Your task to perform on an android device: Go to Reddit.com Image 0: 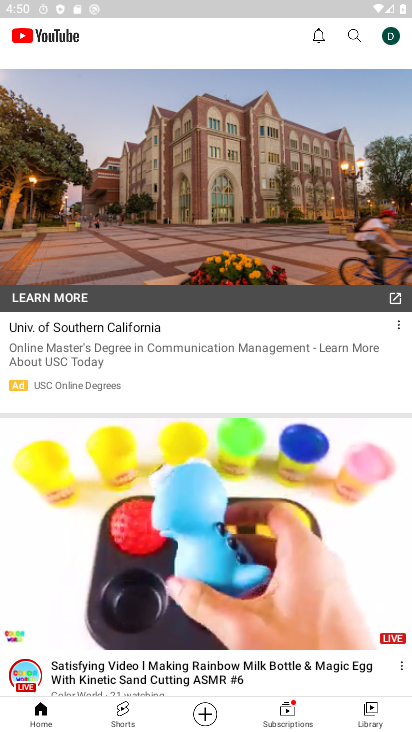
Step 0: press back button
Your task to perform on an android device: Go to Reddit.com Image 1: 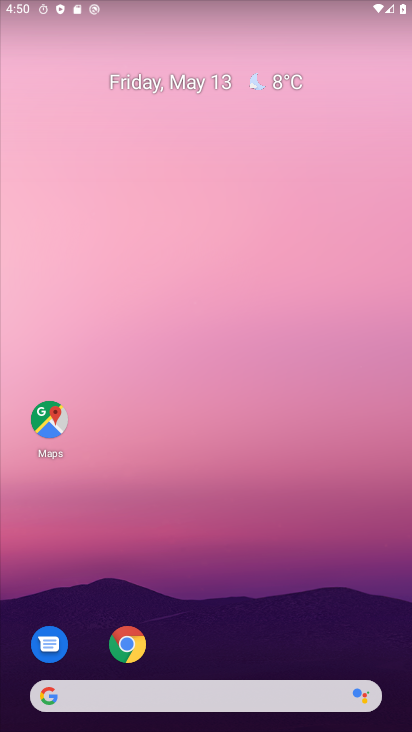
Step 1: click (136, 640)
Your task to perform on an android device: Go to Reddit.com Image 2: 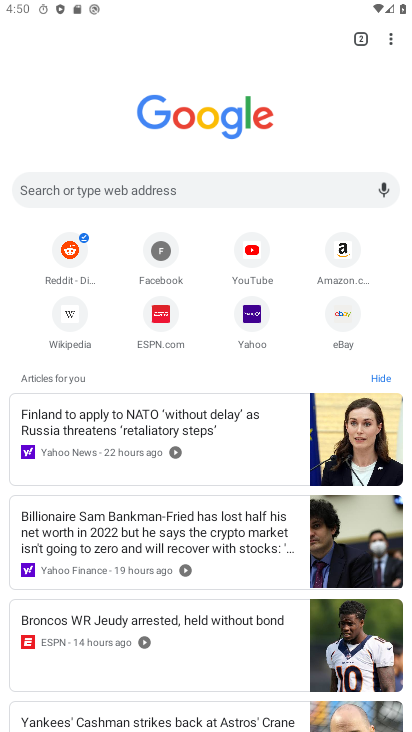
Step 2: click (72, 253)
Your task to perform on an android device: Go to Reddit.com Image 3: 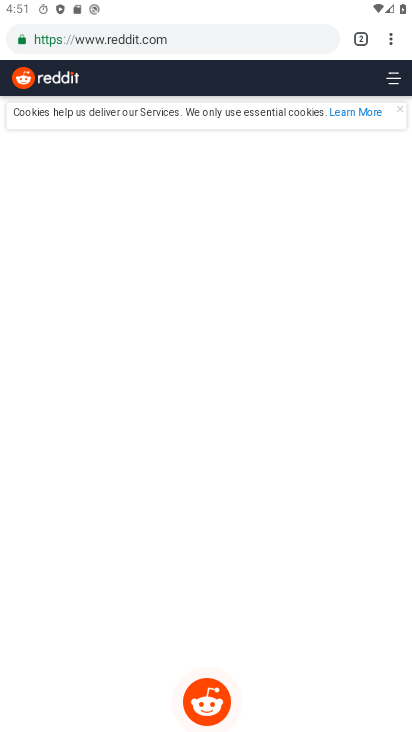
Step 3: task complete